Your task to perform on an android device: View the shopping cart on target. Add panasonic triple a to the cart on target, then select checkout. Image 0: 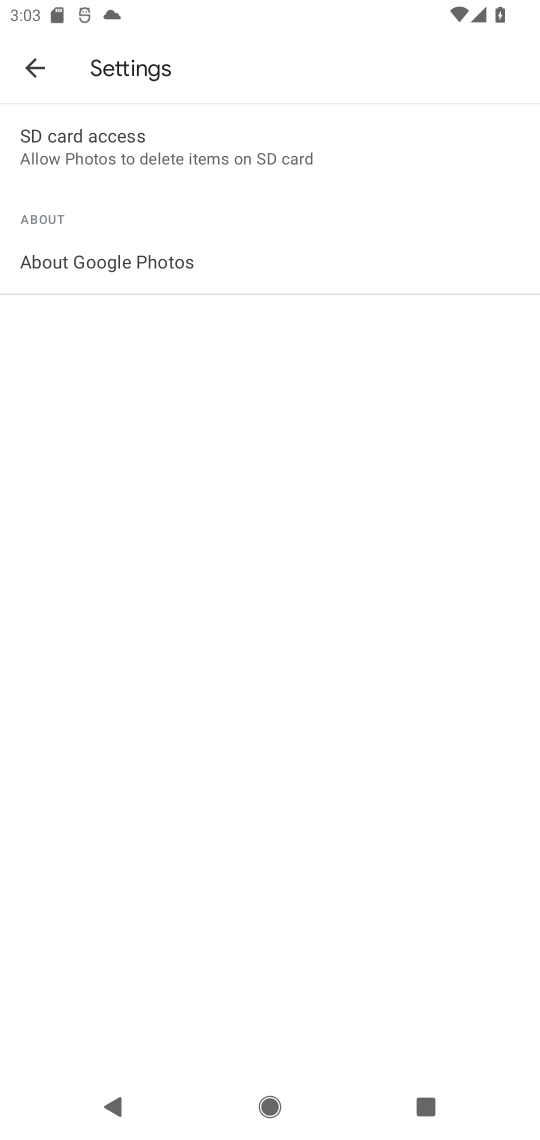
Step 0: press home button
Your task to perform on an android device: View the shopping cart on target. Add panasonic triple a to the cart on target, then select checkout. Image 1: 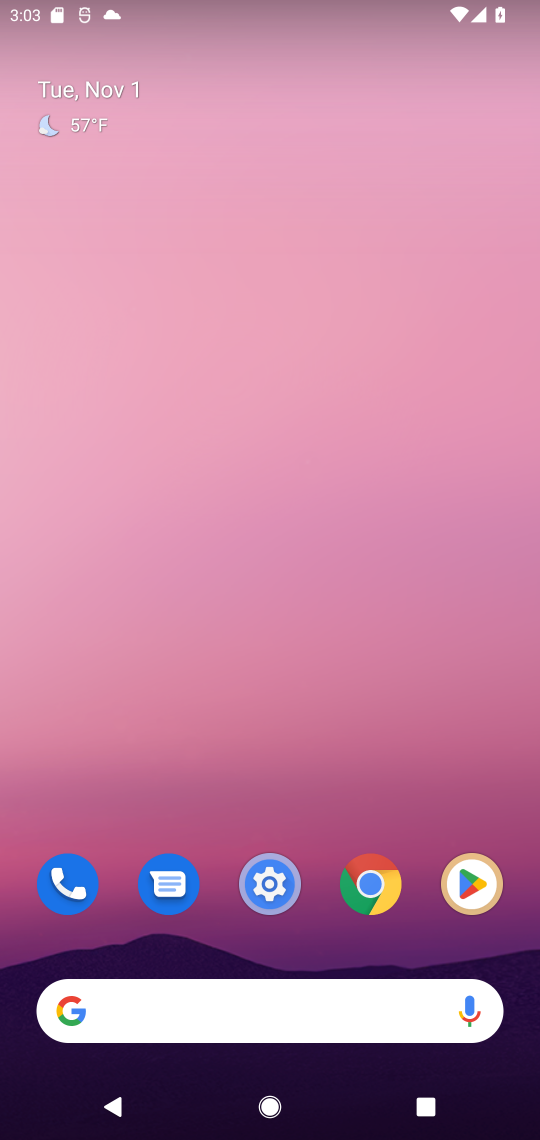
Step 1: click (113, 1015)
Your task to perform on an android device: View the shopping cart on target. Add panasonic triple a to the cart on target, then select checkout. Image 2: 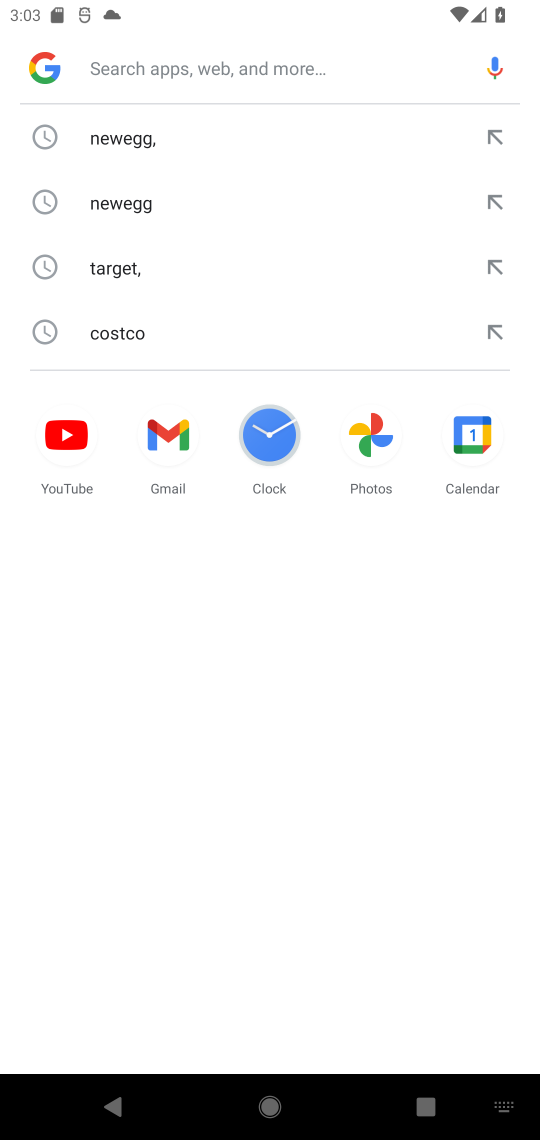
Step 2: type "target"
Your task to perform on an android device: View the shopping cart on target. Add panasonic triple a to the cart on target, then select checkout. Image 3: 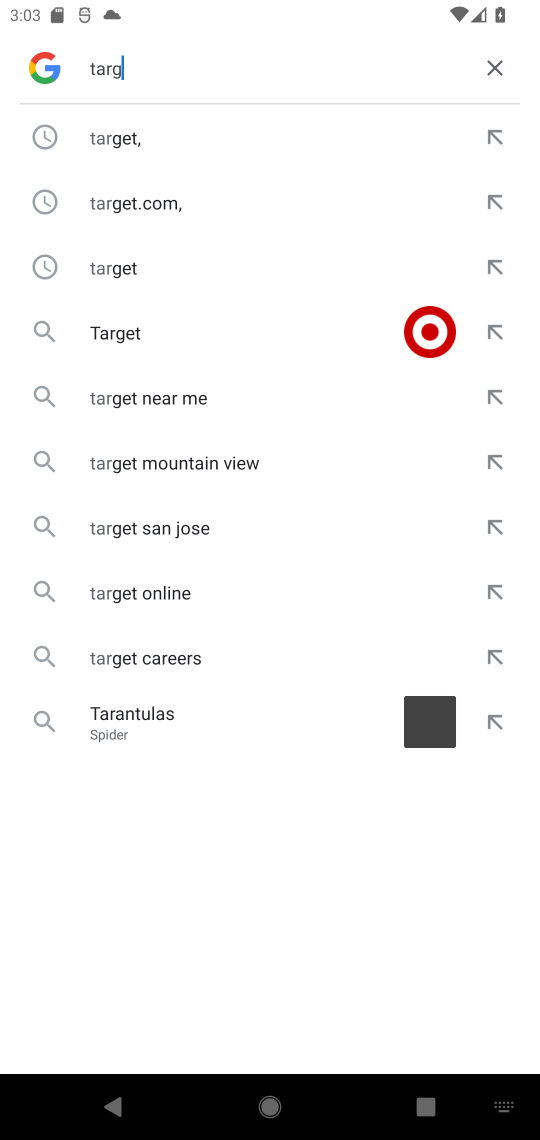
Step 3: press enter
Your task to perform on an android device: View the shopping cart on target. Add panasonic triple a to the cart on target, then select checkout. Image 4: 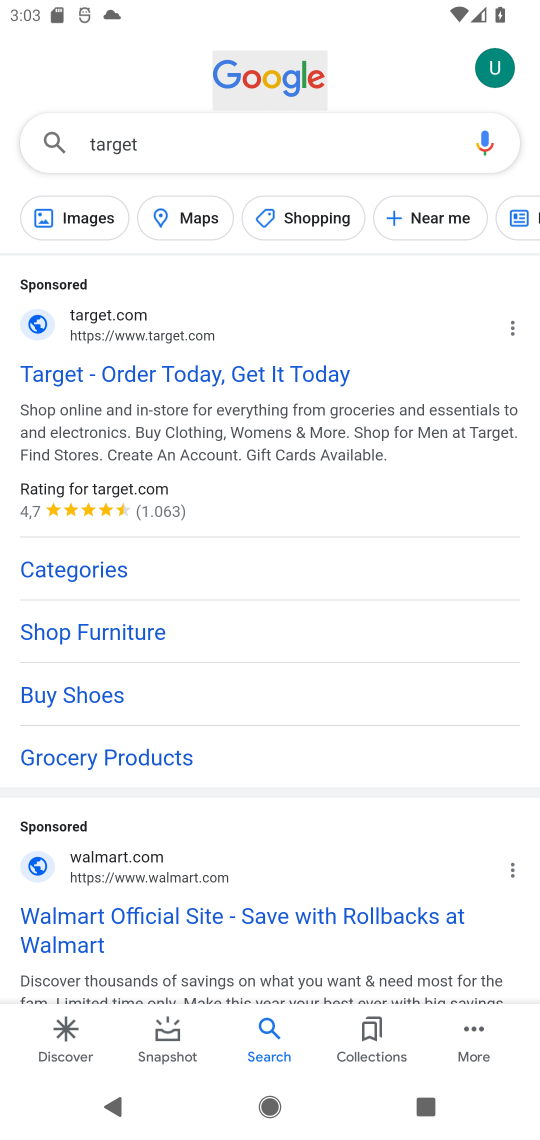
Step 4: click (197, 376)
Your task to perform on an android device: View the shopping cart on target. Add panasonic triple a to the cart on target, then select checkout. Image 5: 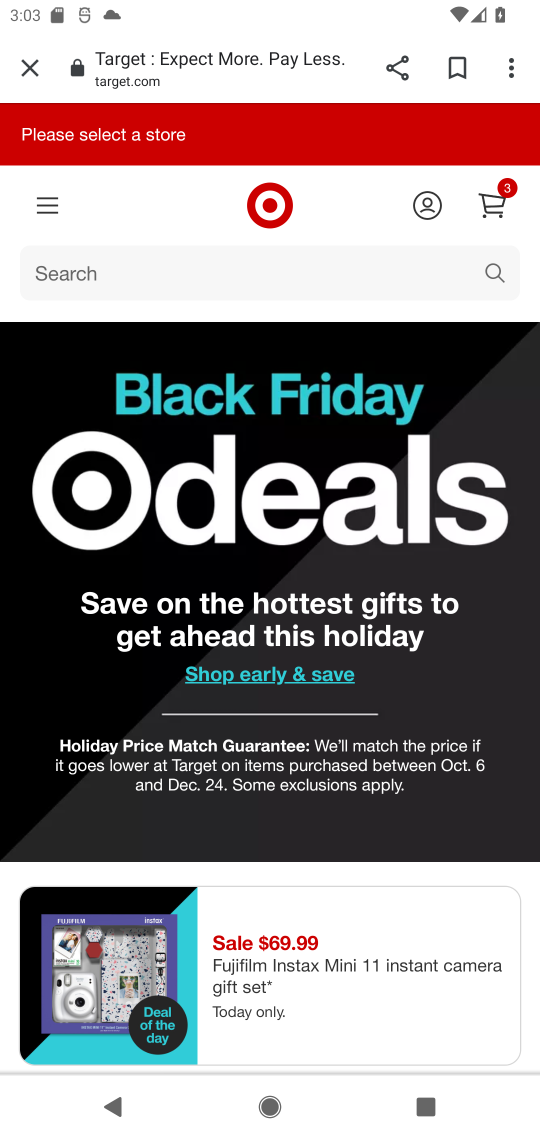
Step 5: click (502, 188)
Your task to perform on an android device: View the shopping cart on target. Add panasonic triple a to the cart on target, then select checkout. Image 6: 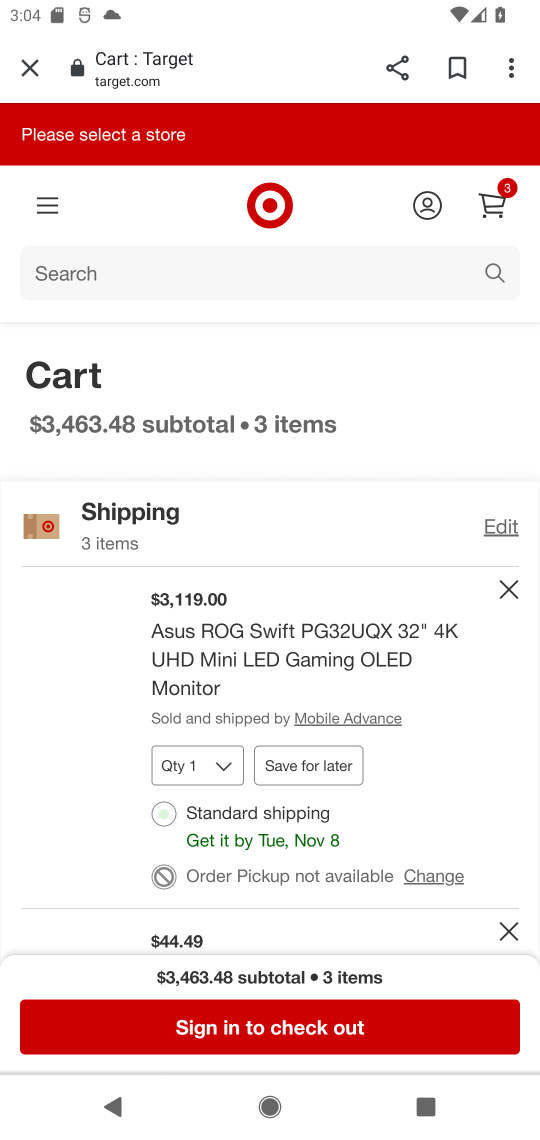
Step 6: click (91, 280)
Your task to perform on an android device: View the shopping cart on target. Add panasonic triple a to the cart on target, then select checkout. Image 7: 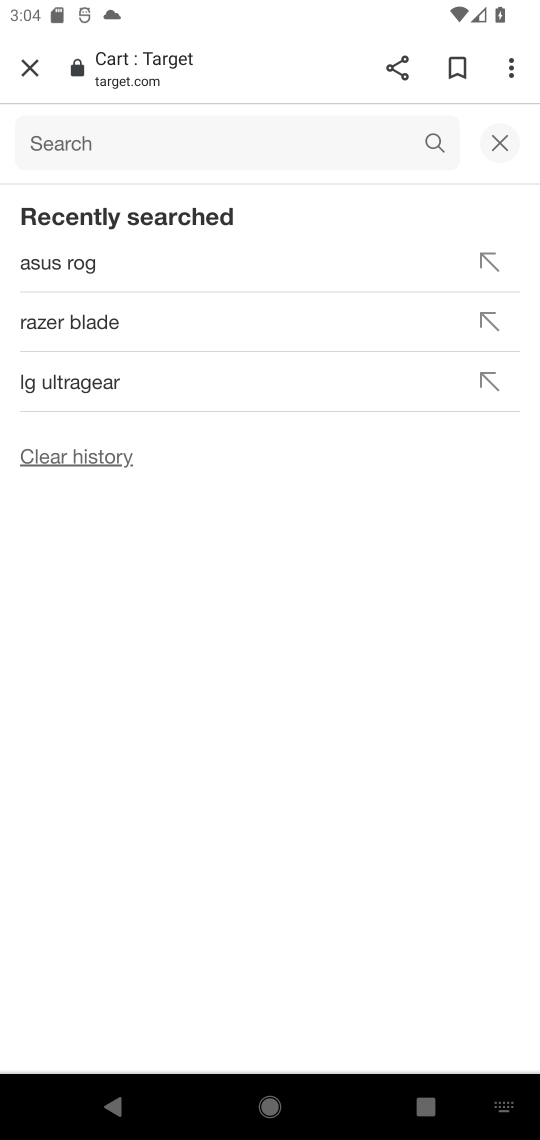
Step 7: type "panasonic triple a"
Your task to perform on an android device: View the shopping cart on target. Add panasonic triple a to the cart on target, then select checkout. Image 8: 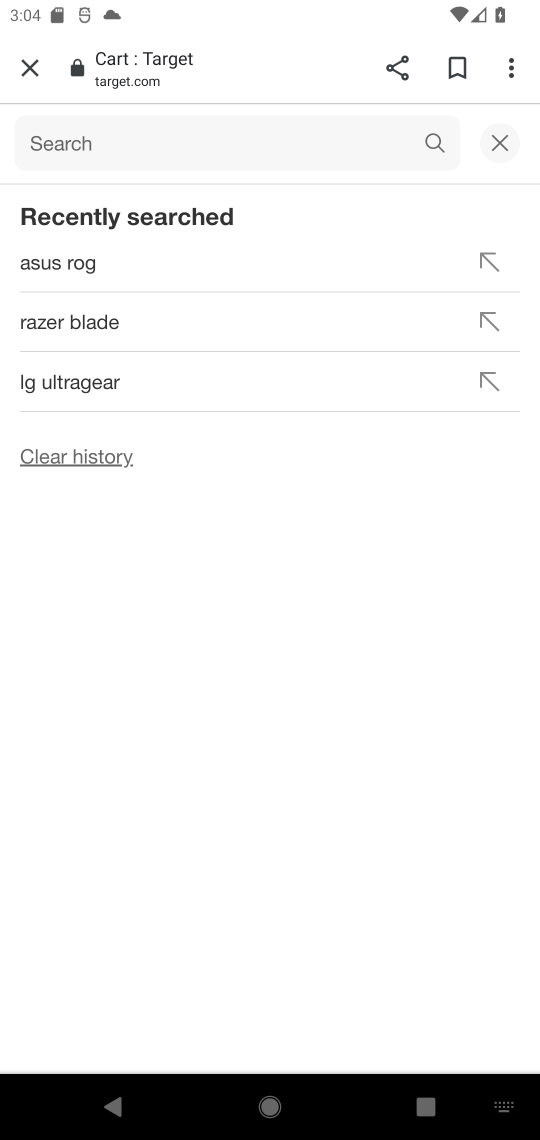
Step 8: press enter
Your task to perform on an android device: View the shopping cart on target. Add panasonic triple a to the cart on target, then select checkout. Image 9: 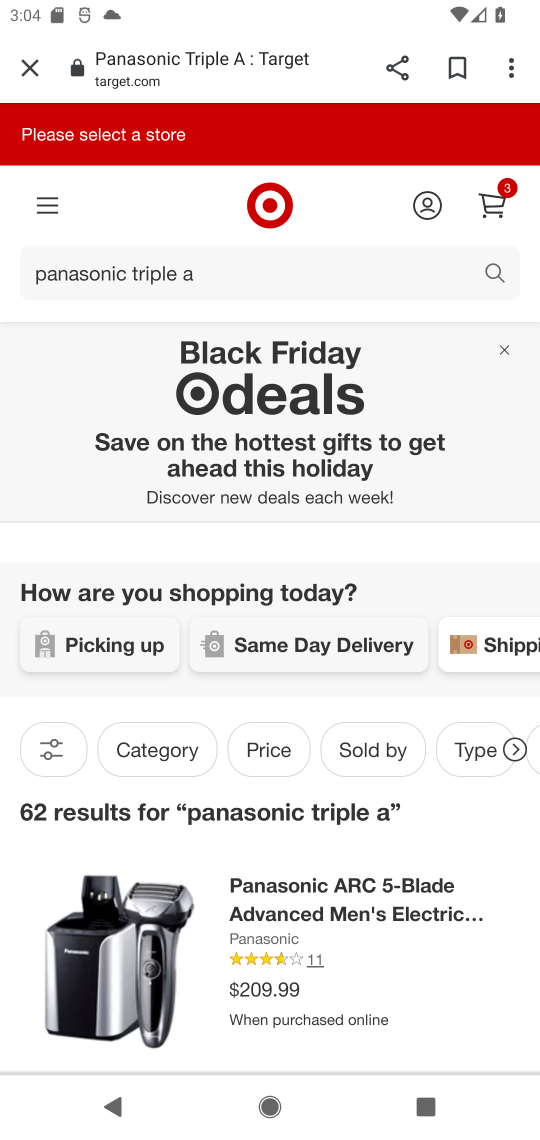
Step 9: task complete